Your task to perform on an android device: clear all cookies in the chrome app Image 0: 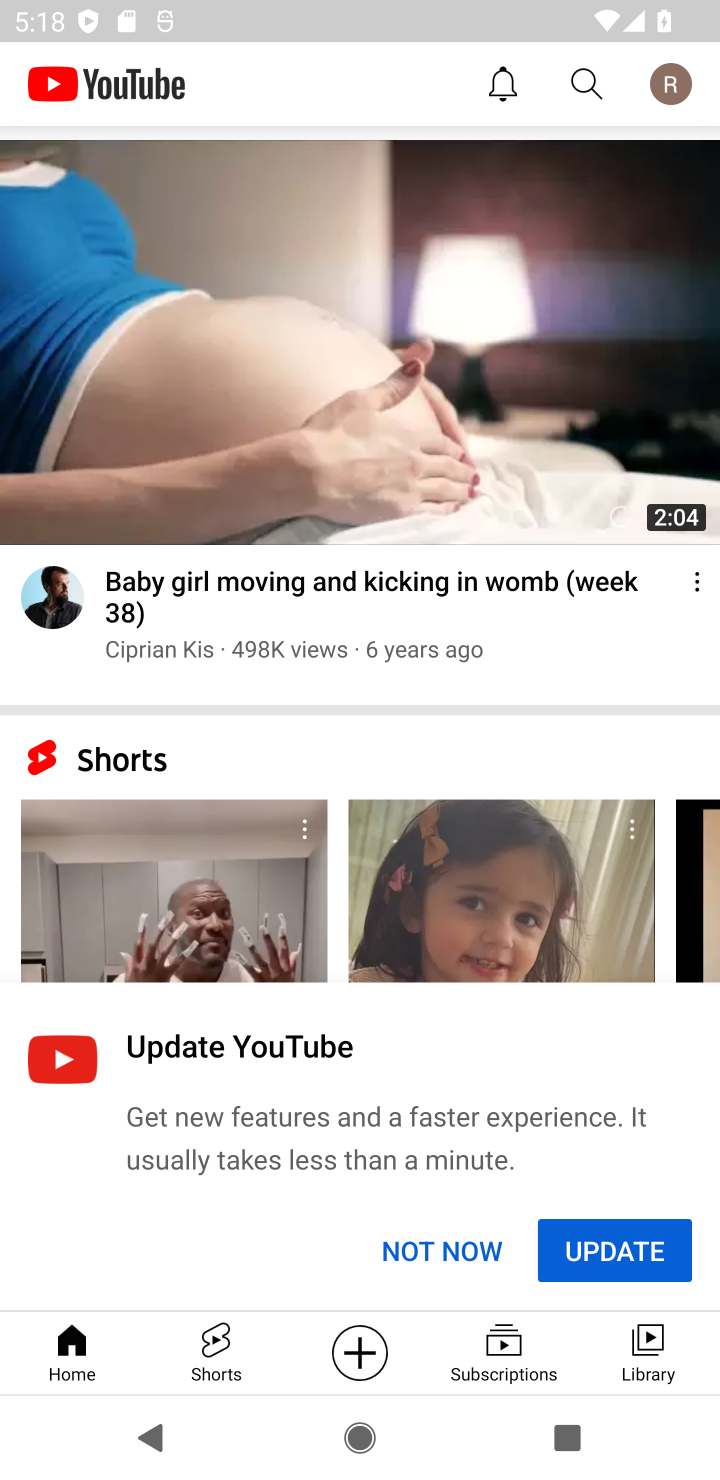
Step 0: press home button
Your task to perform on an android device: clear all cookies in the chrome app Image 1: 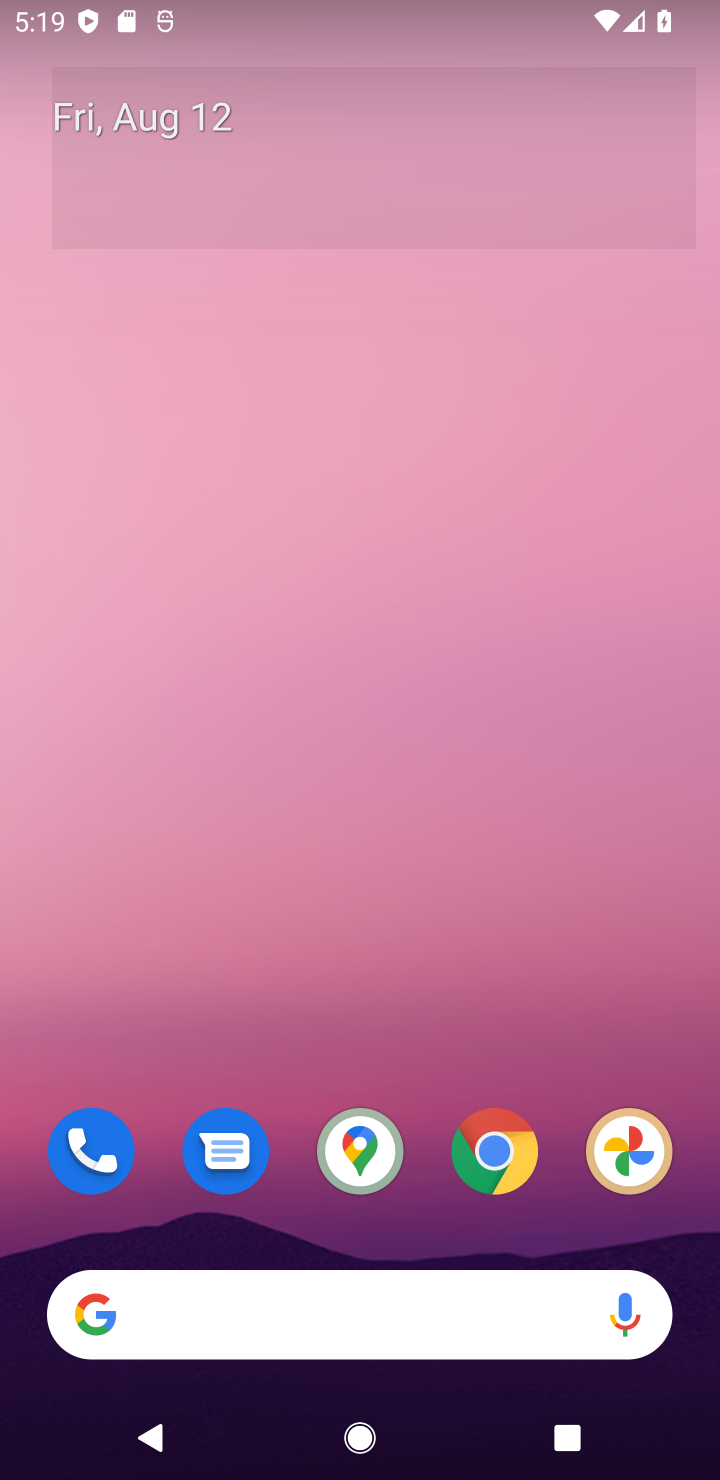
Step 1: drag from (497, 1043) to (480, 124)
Your task to perform on an android device: clear all cookies in the chrome app Image 2: 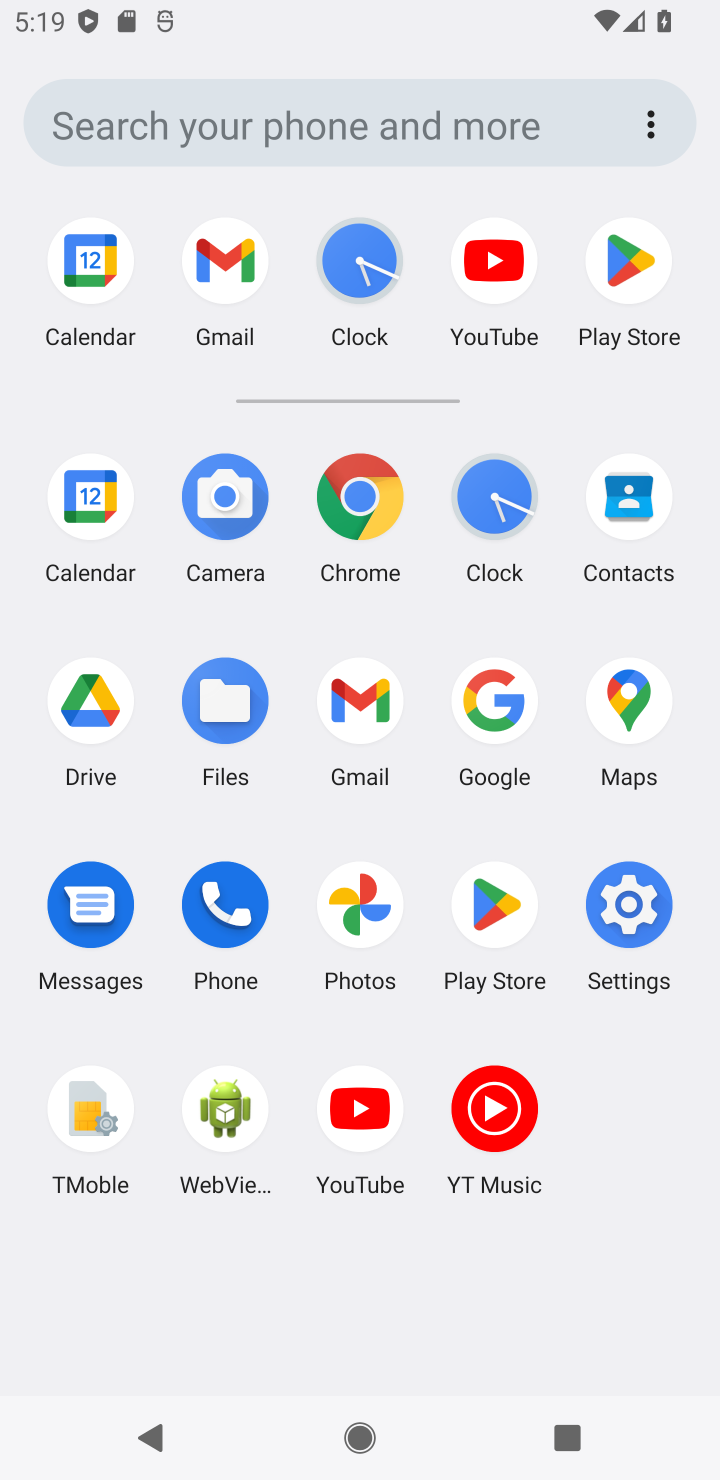
Step 2: click (370, 497)
Your task to perform on an android device: clear all cookies in the chrome app Image 3: 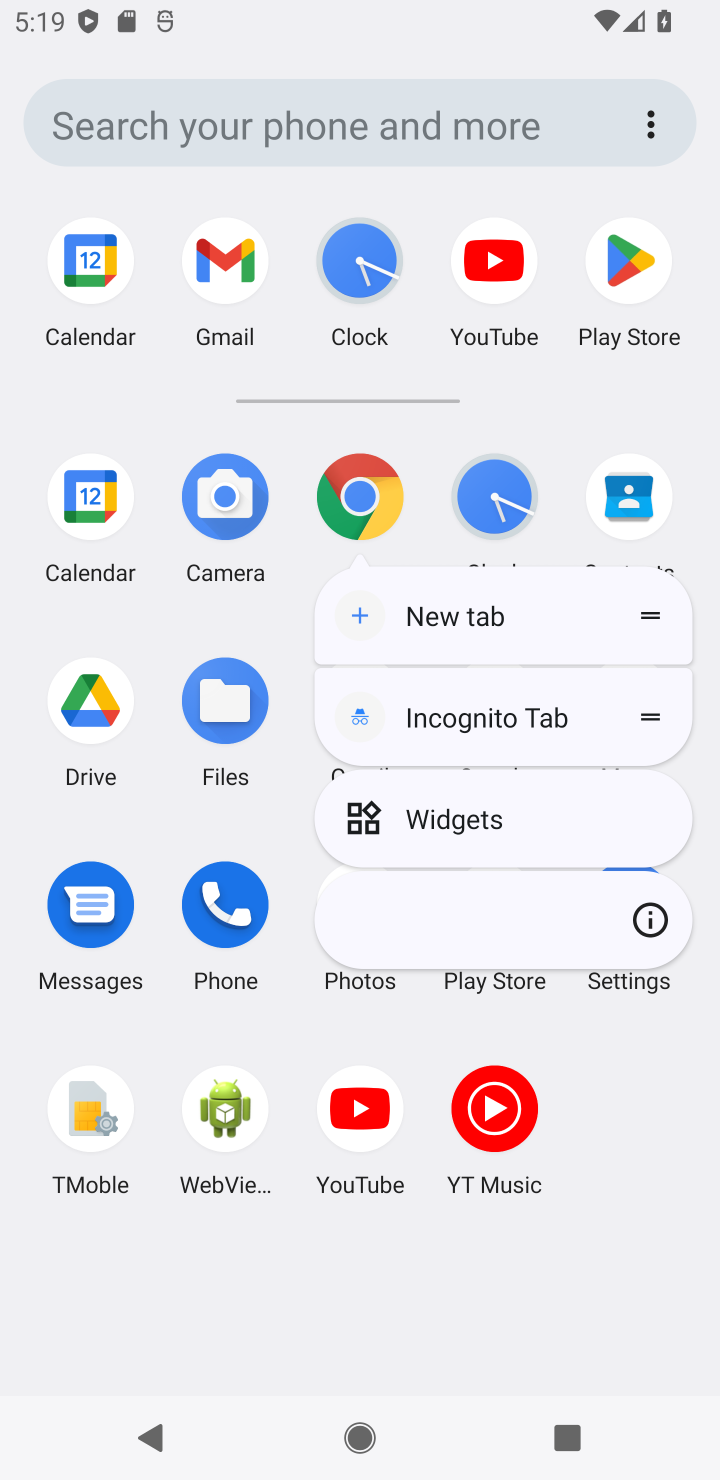
Step 3: click (369, 505)
Your task to perform on an android device: clear all cookies in the chrome app Image 4: 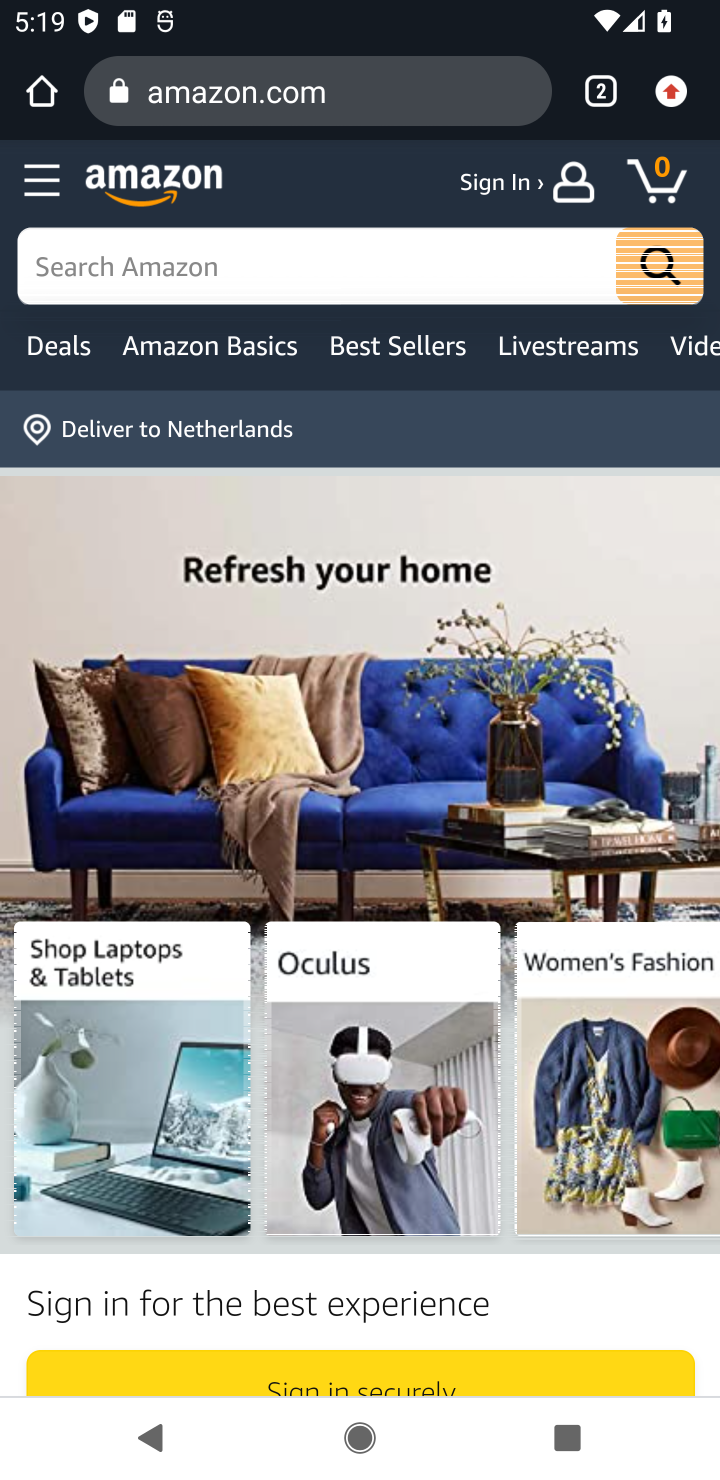
Step 4: drag from (706, 59) to (374, 1260)
Your task to perform on an android device: clear all cookies in the chrome app Image 5: 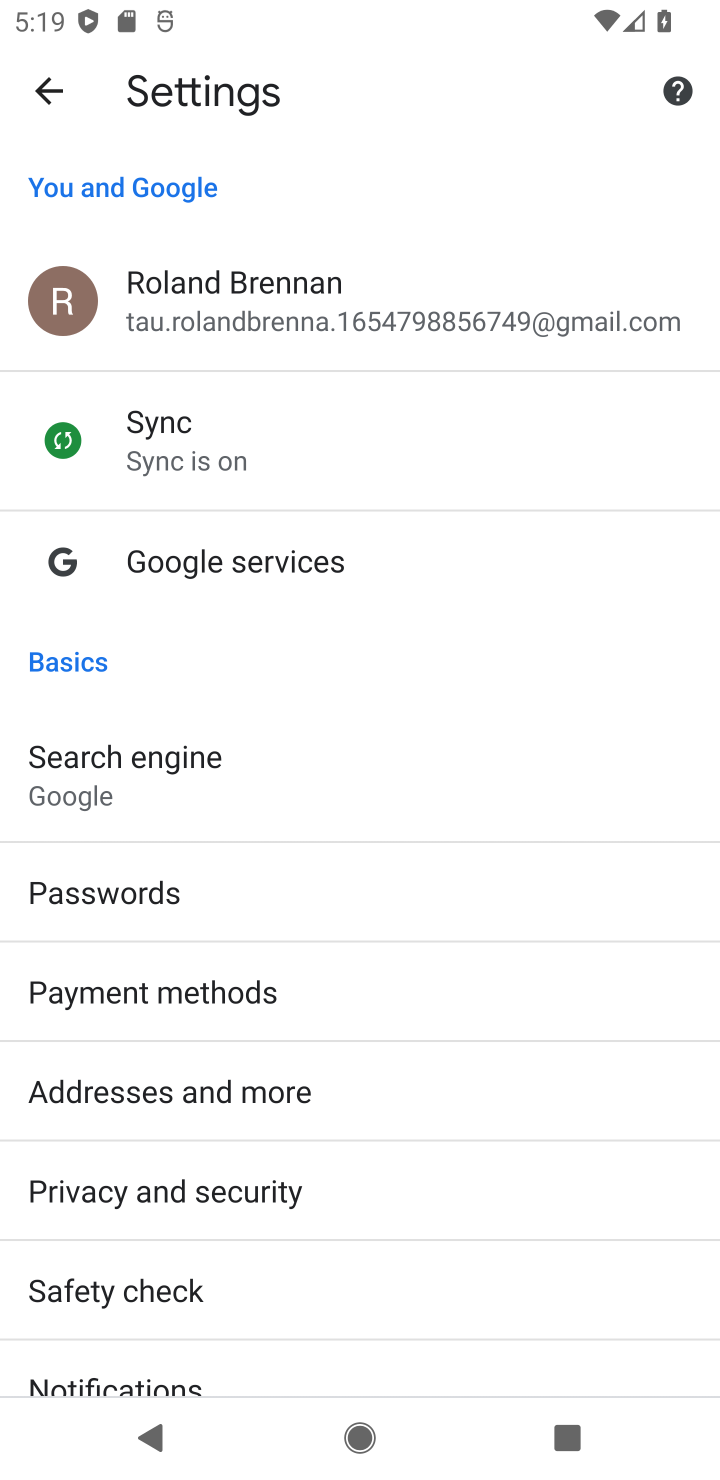
Step 5: drag from (440, 1157) to (505, 311)
Your task to perform on an android device: clear all cookies in the chrome app Image 6: 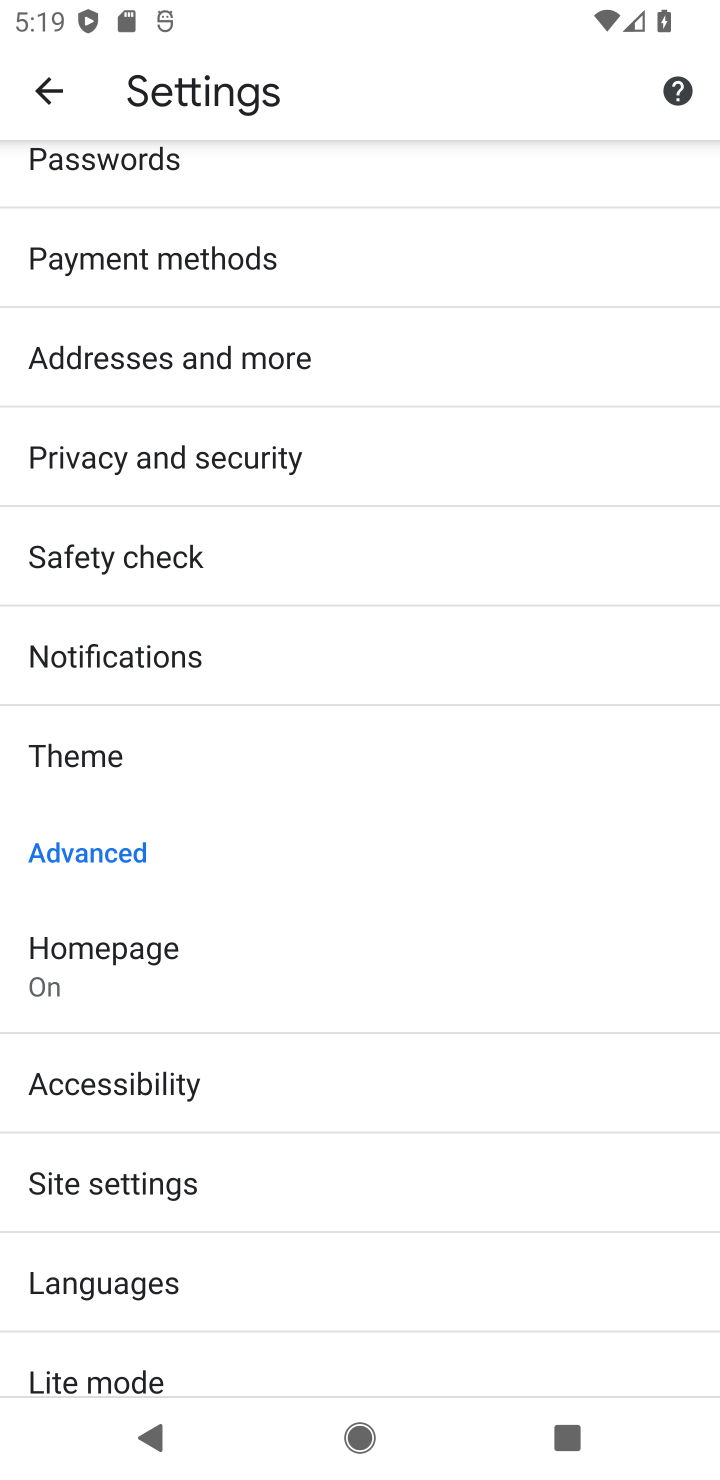
Step 6: press back button
Your task to perform on an android device: clear all cookies in the chrome app Image 7: 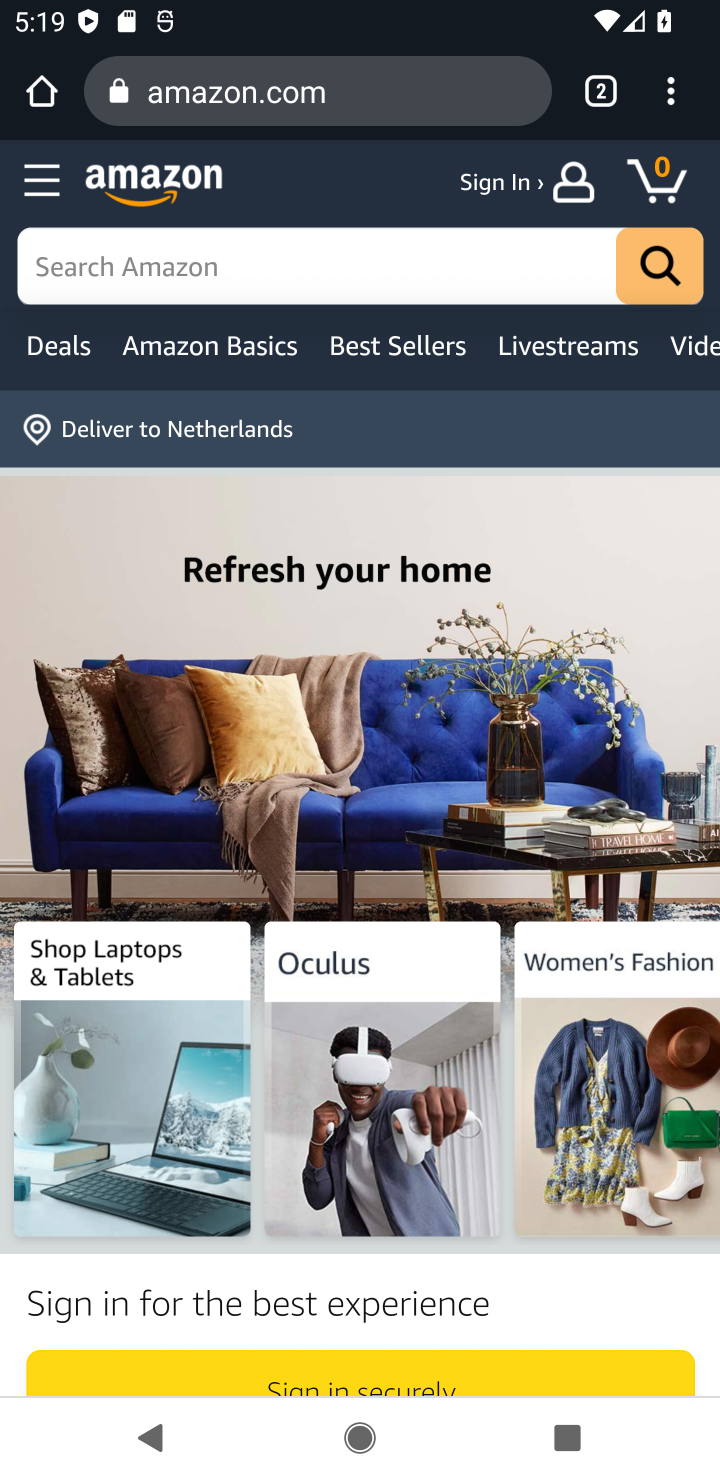
Step 7: drag from (679, 82) to (482, 457)
Your task to perform on an android device: clear all cookies in the chrome app Image 8: 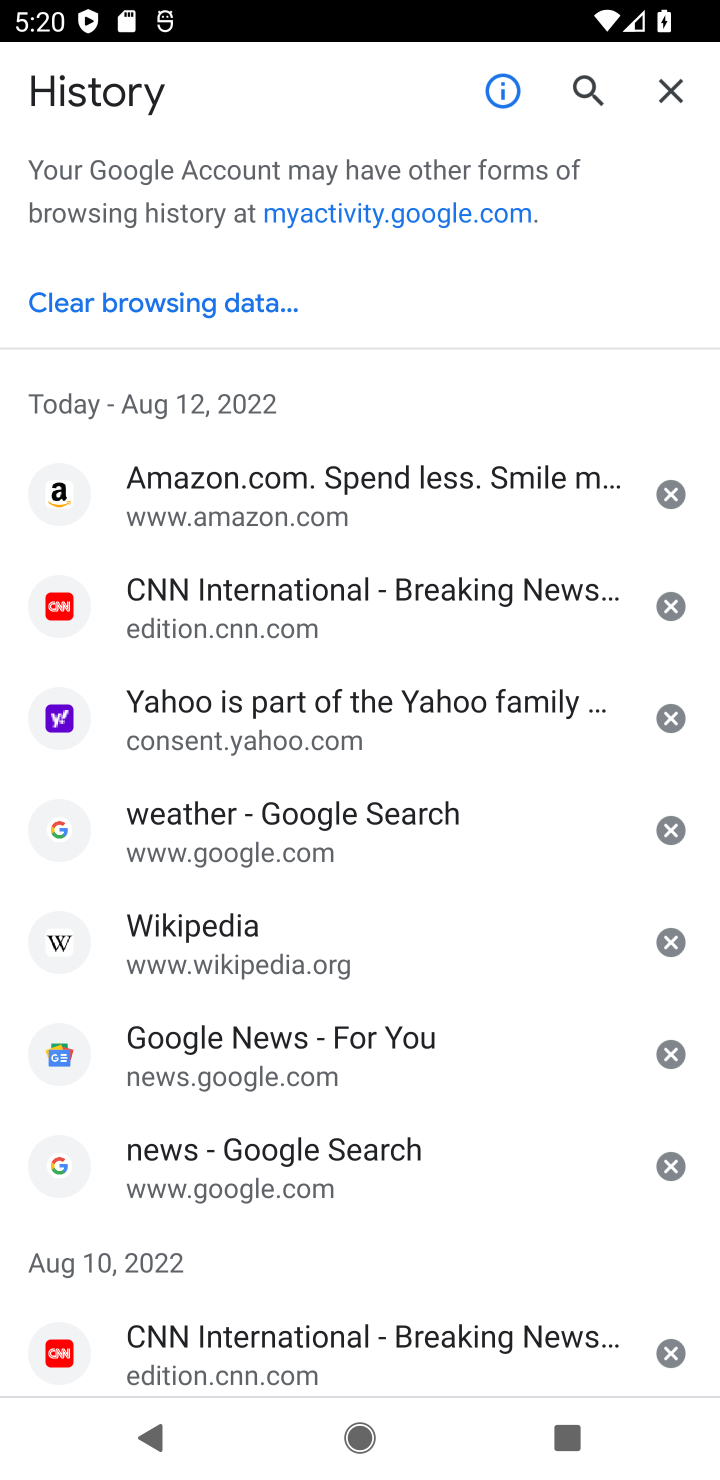
Step 8: click (124, 311)
Your task to perform on an android device: clear all cookies in the chrome app Image 9: 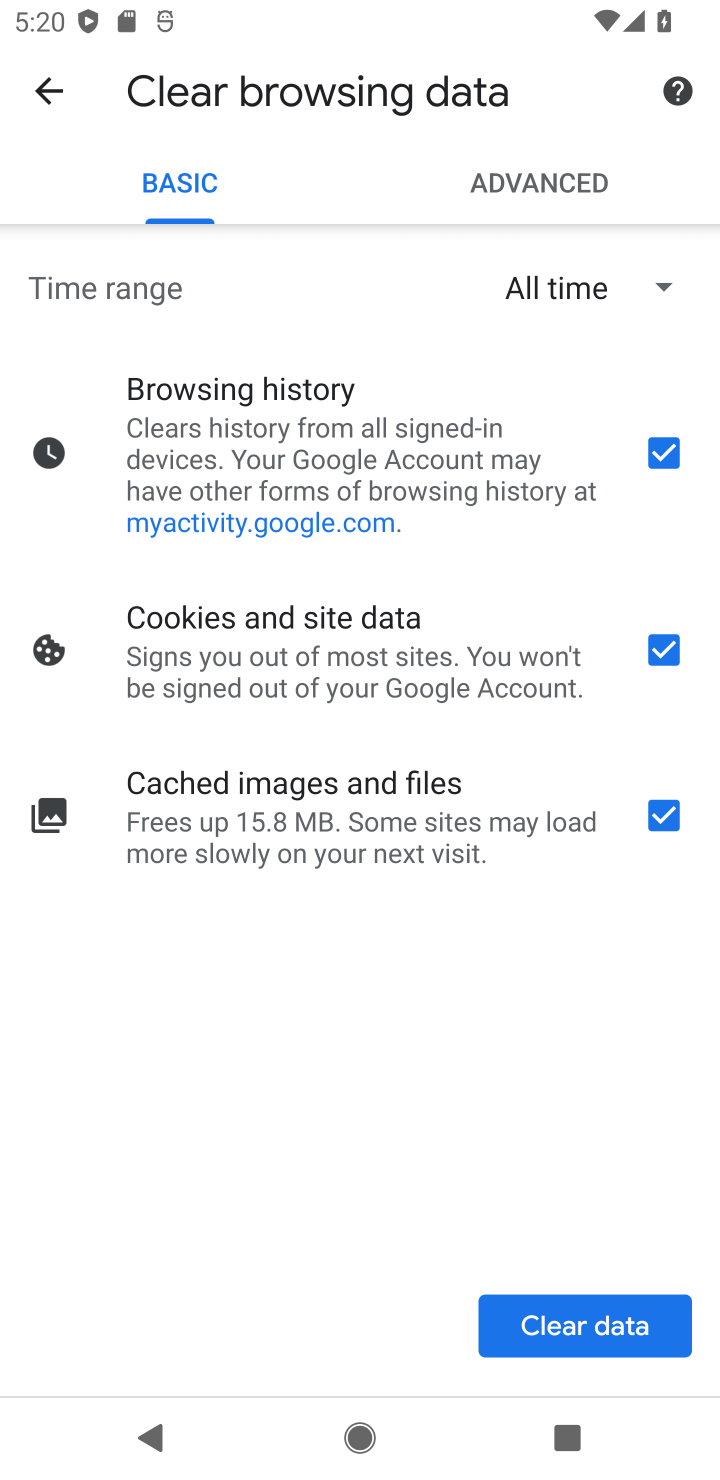
Step 9: click (627, 1315)
Your task to perform on an android device: clear all cookies in the chrome app Image 10: 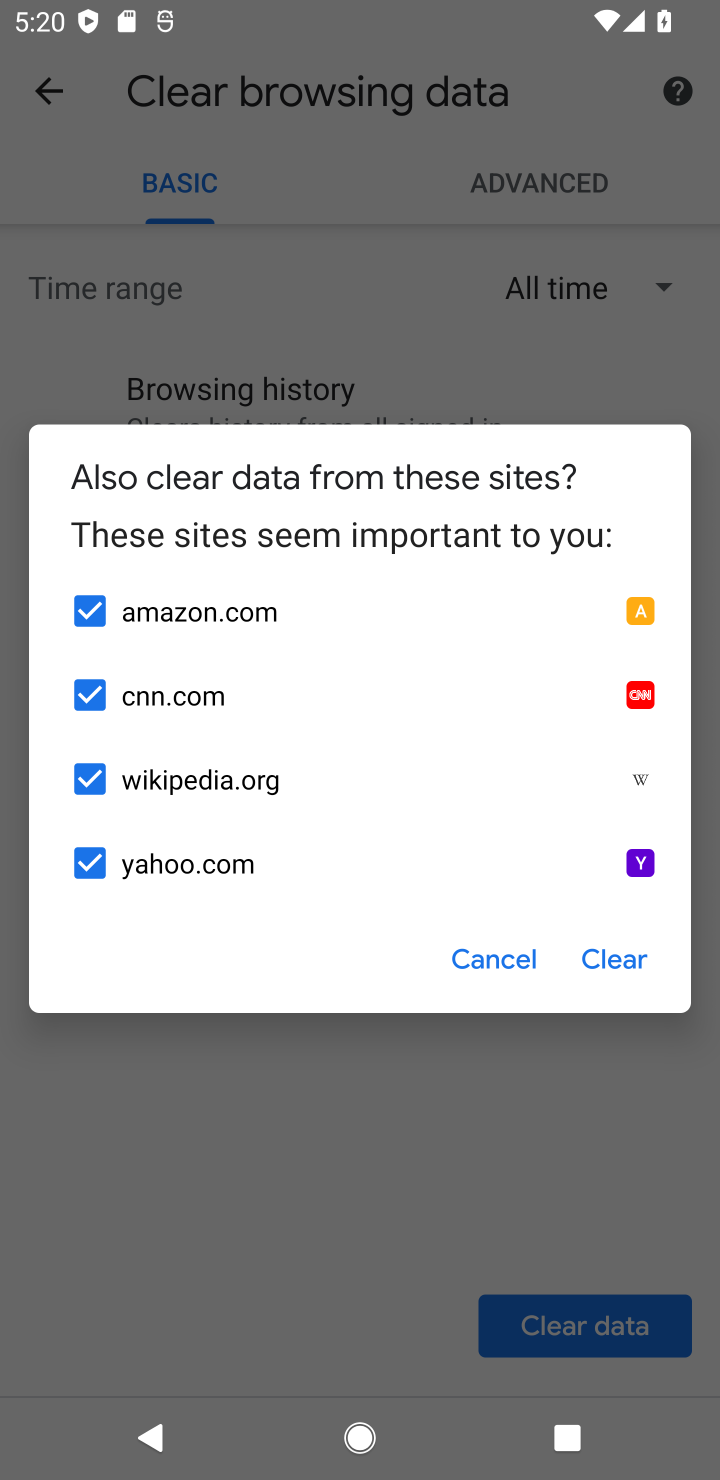
Step 10: click (609, 955)
Your task to perform on an android device: clear all cookies in the chrome app Image 11: 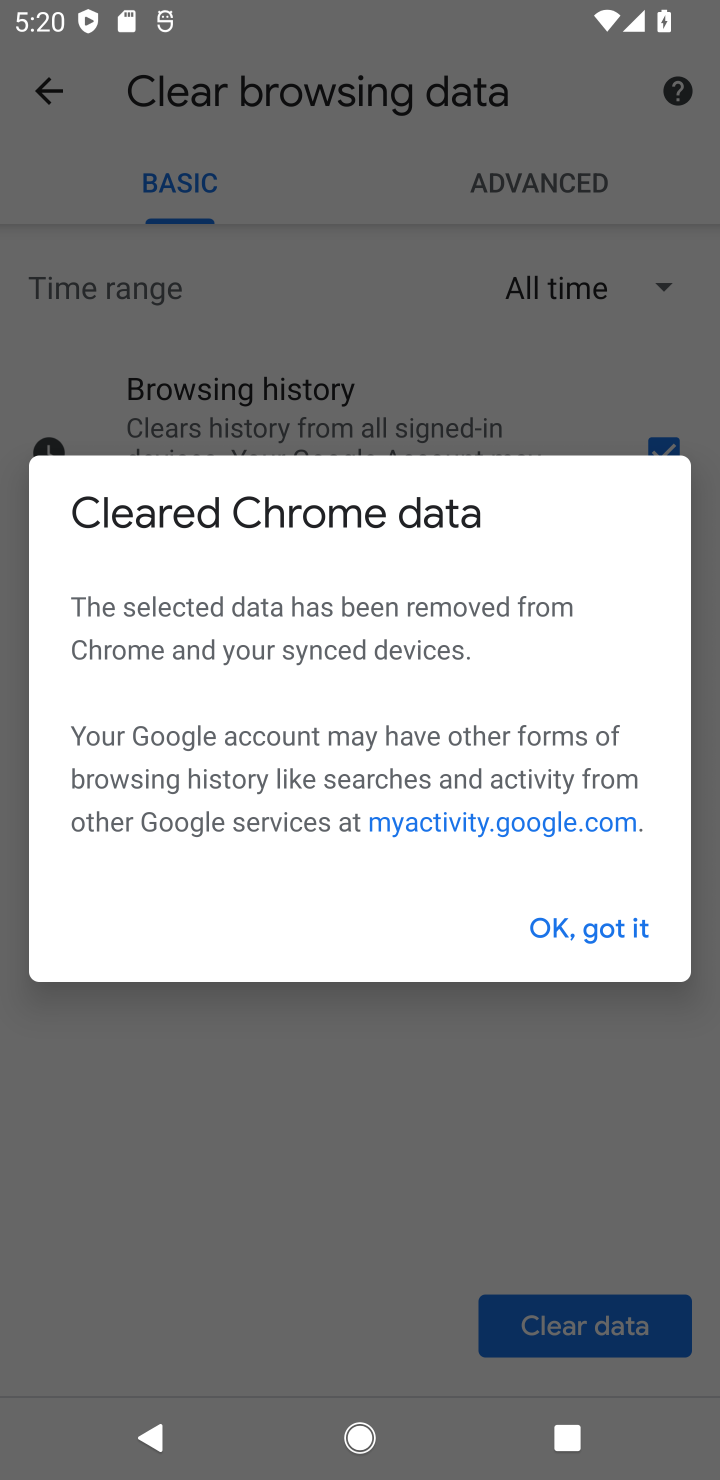
Step 11: click (602, 940)
Your task to perform on an android device: clear all cookies in the chrome app Image 12: 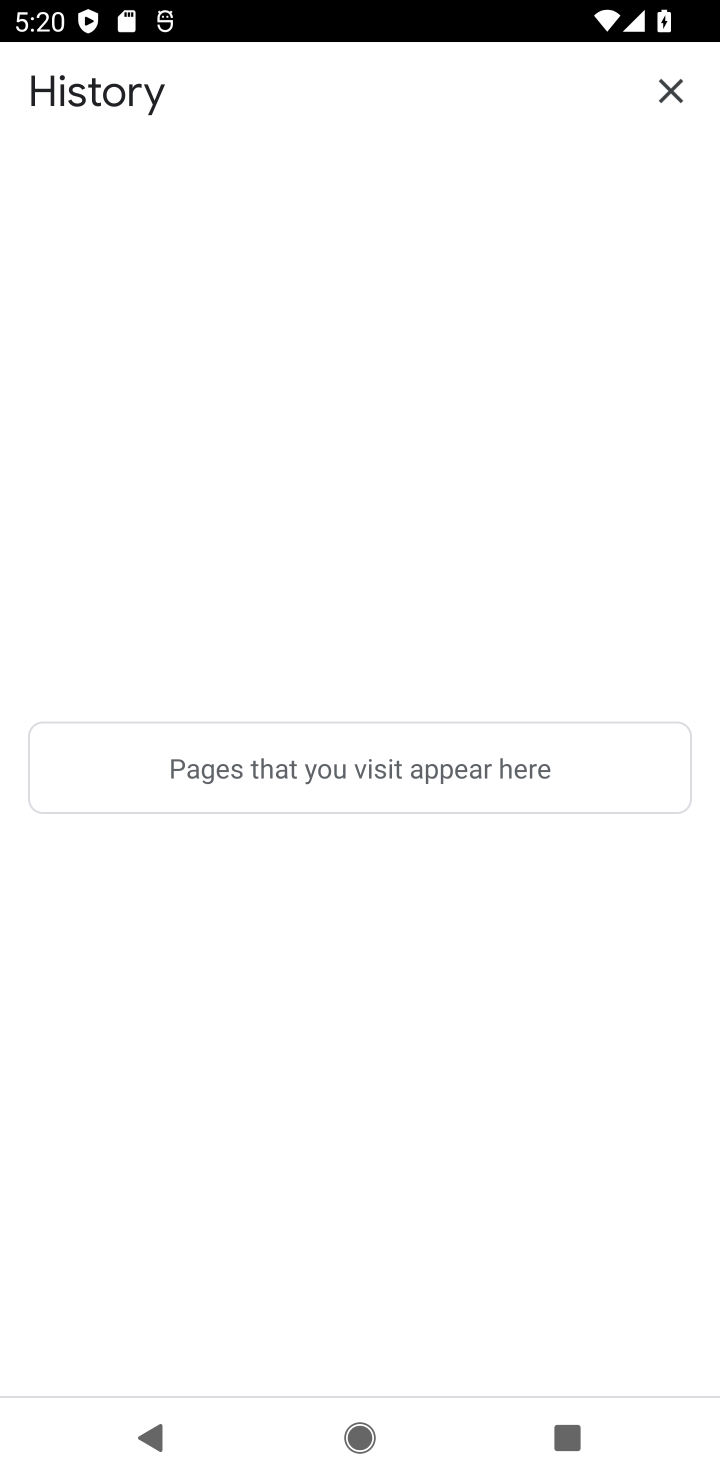
Step 12: task complete